Your task to perform on an android device: see creations saved in the google photos Image 0: 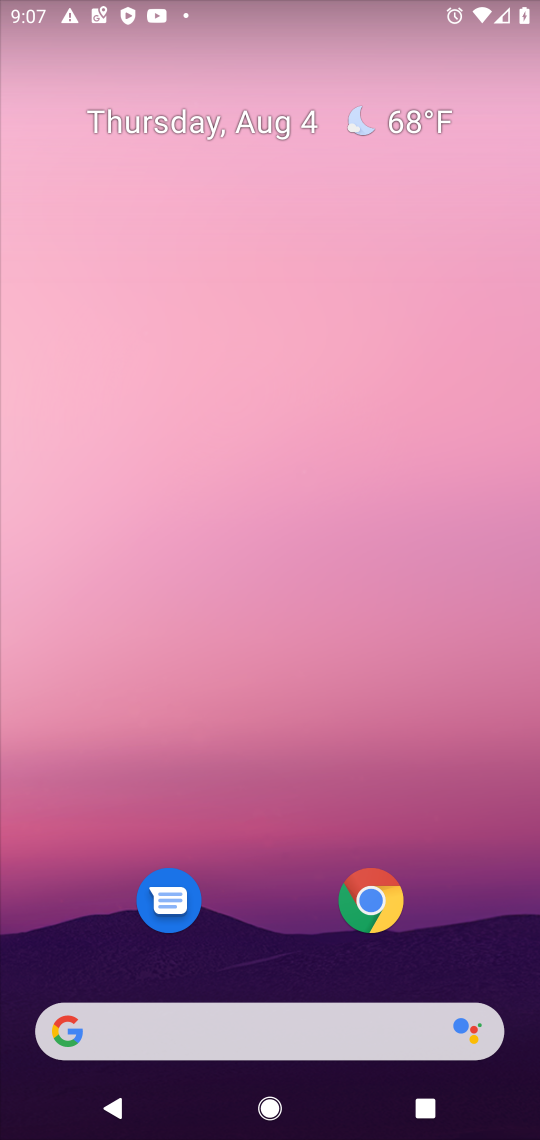
Step 0: drag from (290, 1035) to (406, 169)
Your task to perform on an android device: see creations saved in the google photos Image 1: 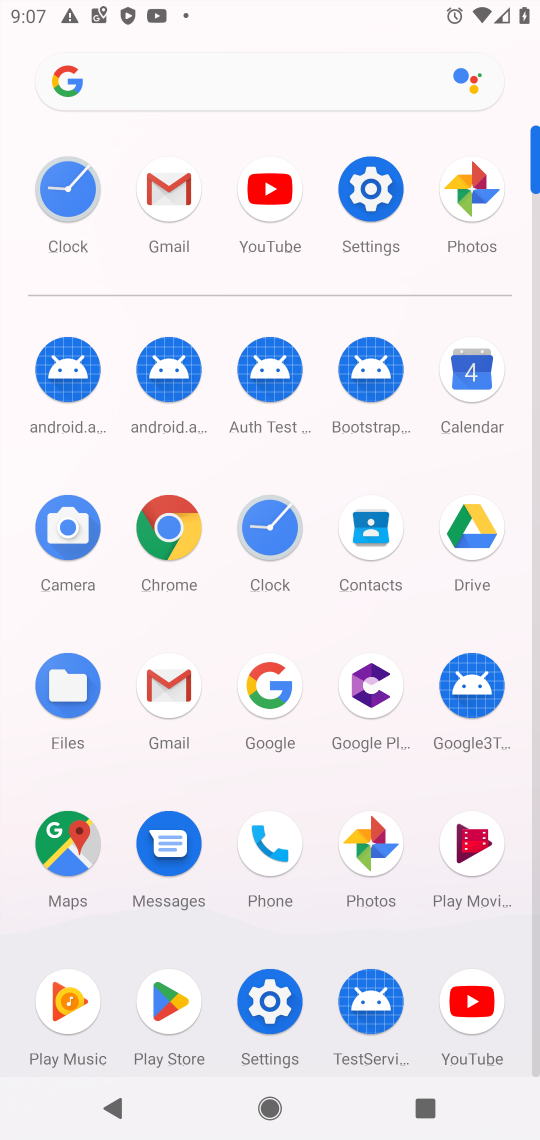
Step 1: click (468, 193)
Your task to perform on an android device: see creations saved in the google photos Image 2: 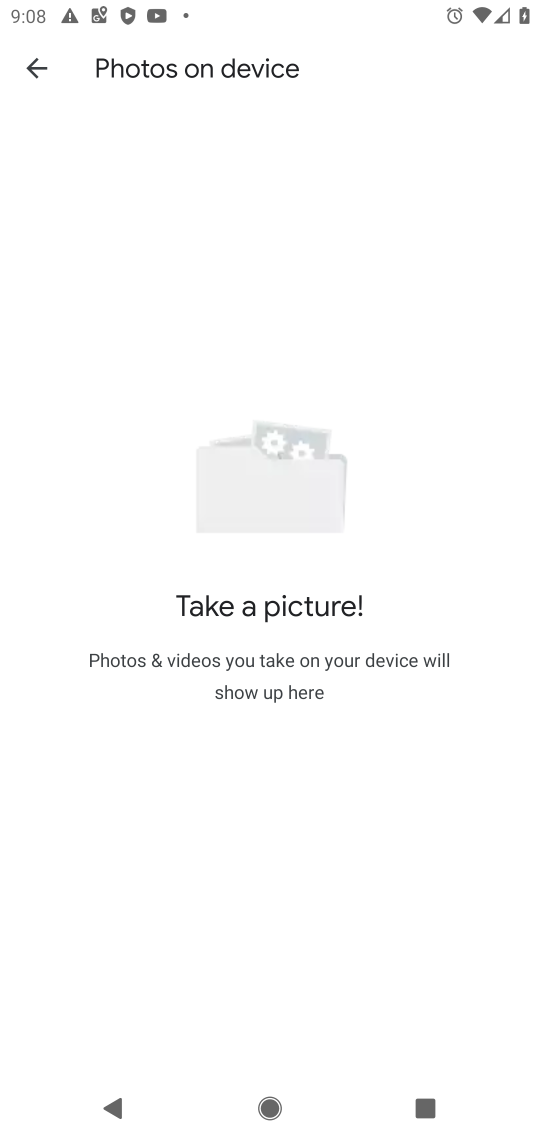
Step 2: press back button
Your task to perform on an android device: see creations saved in the google photos Image 3: 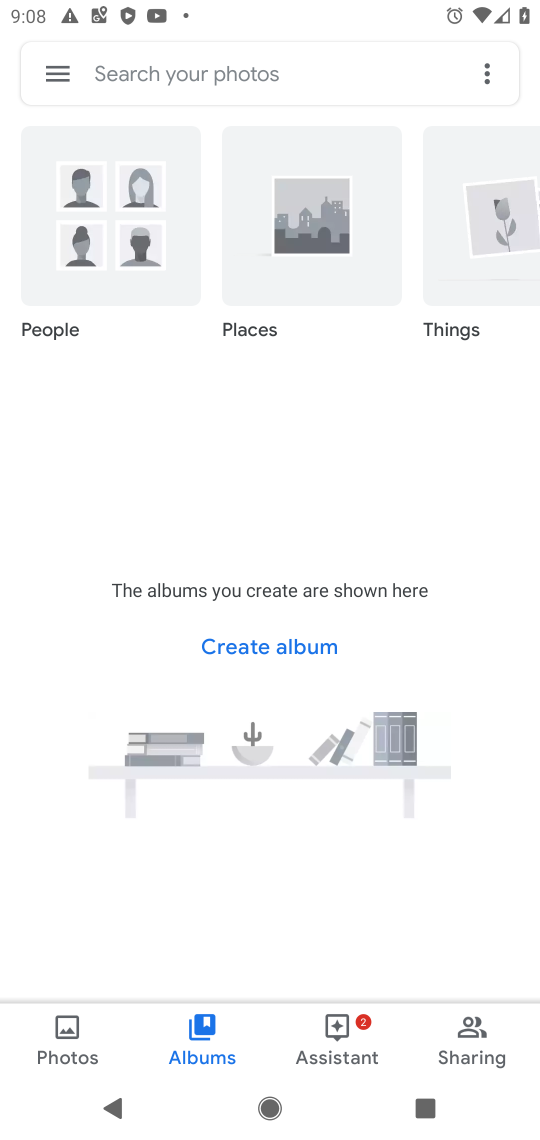
Step 3: click (63, 1043)
Your task to perform on an android device: see creations saved in the google photos Image 4: 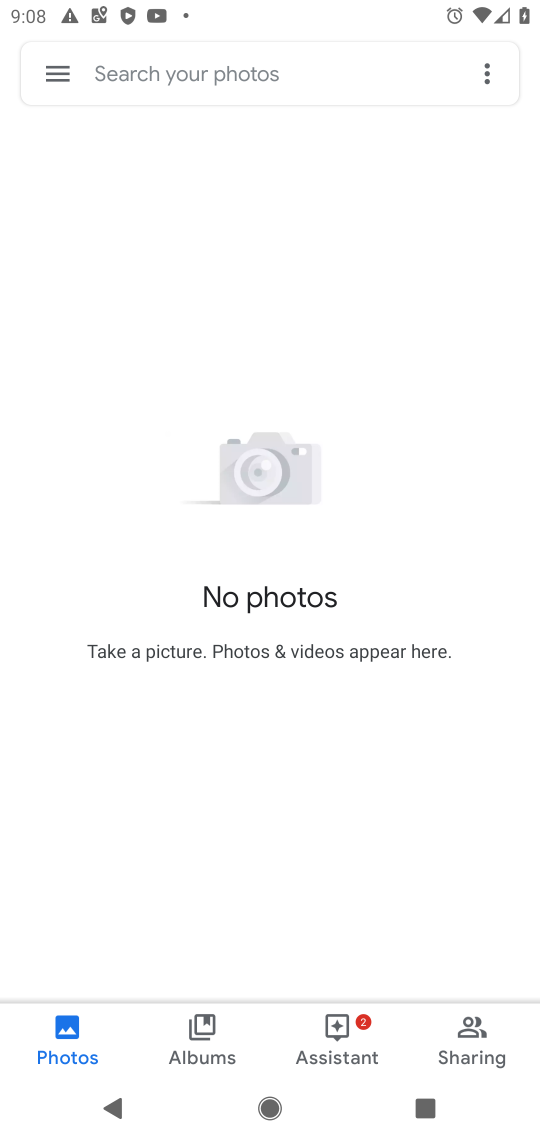
Step 4: click (54, 81)
Your task to perform on an android device: see creations saved in the google photos Image 5: 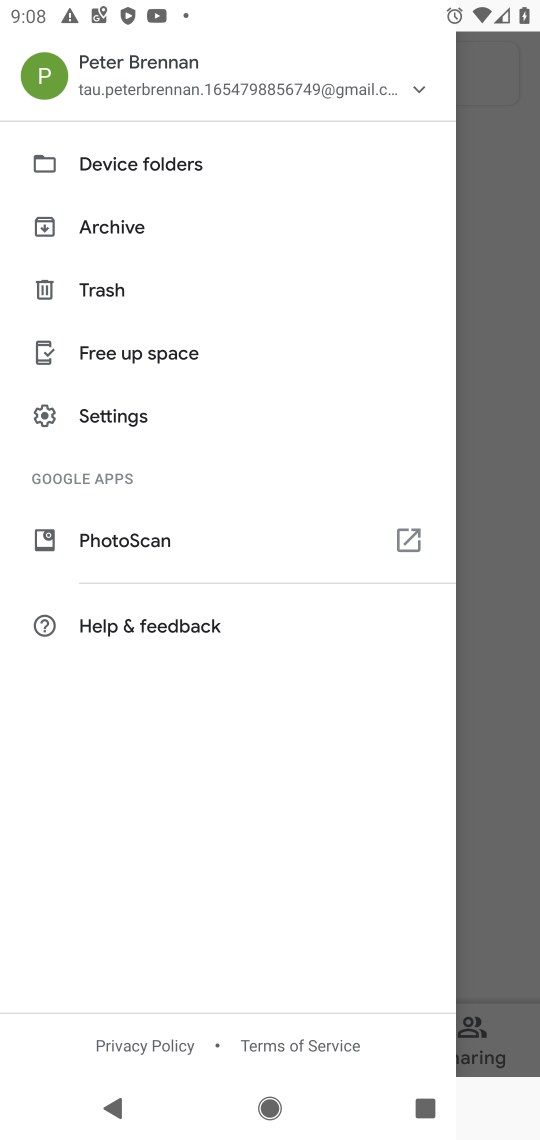
Step 5: click (151, 410)
Your task to perform on an android device: see creations saved in the google photos Image 6: 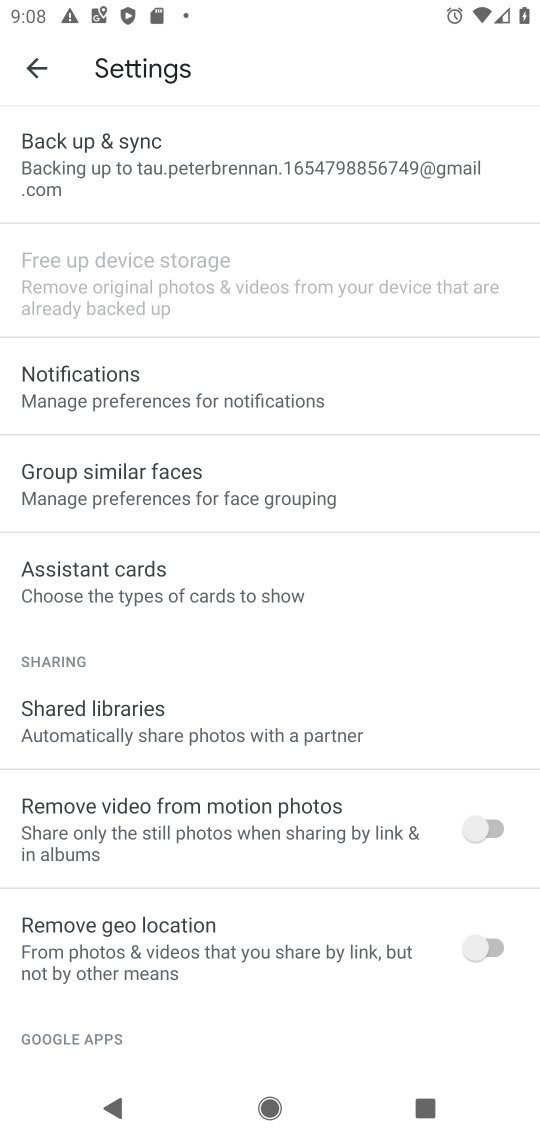
Step 6: drag from (145, 738) to (193, 582)
Your task to perform on an android device: see creations saved in the google photos Image 7: 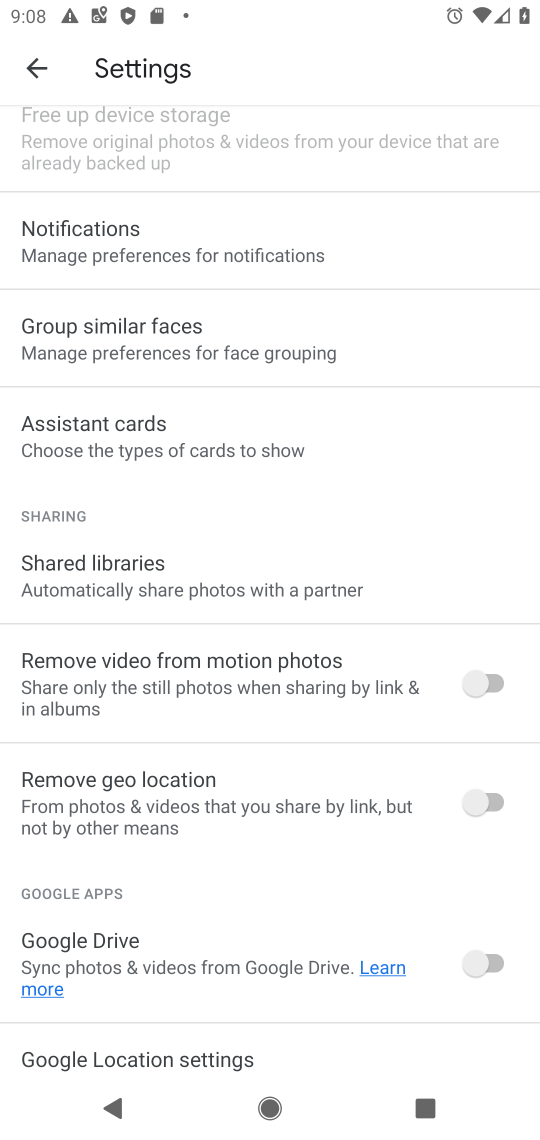
Step 7: drag from (188, 883) to (294, 718)
Your task to perform on an android device: see creations saved in the google photos Image 8: 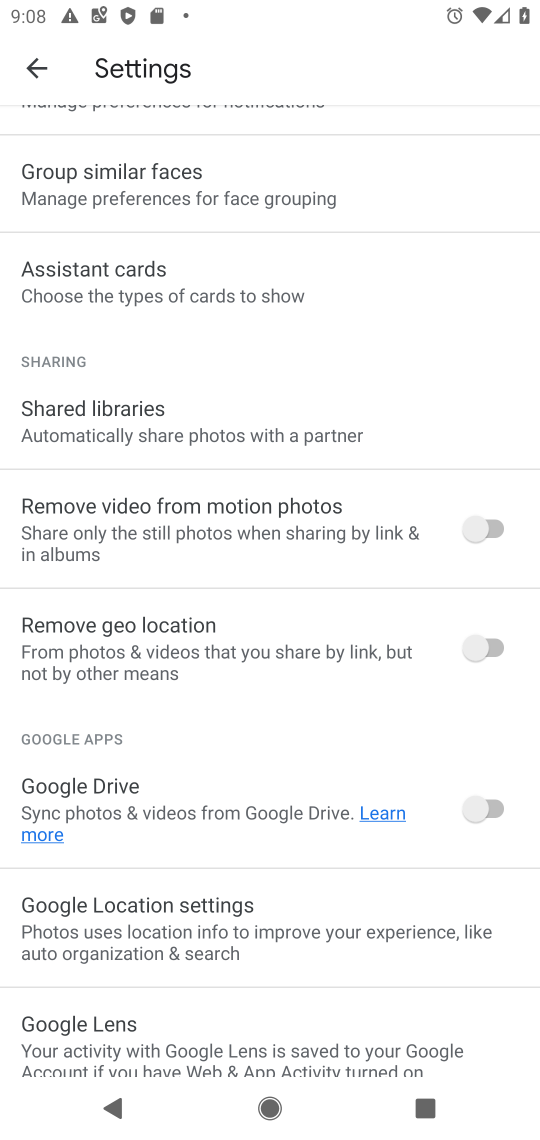
Step 8: drag from (284, 319) to (282, 673)
Your task to perform on an android device: see creations saved in the google photos Image 9: 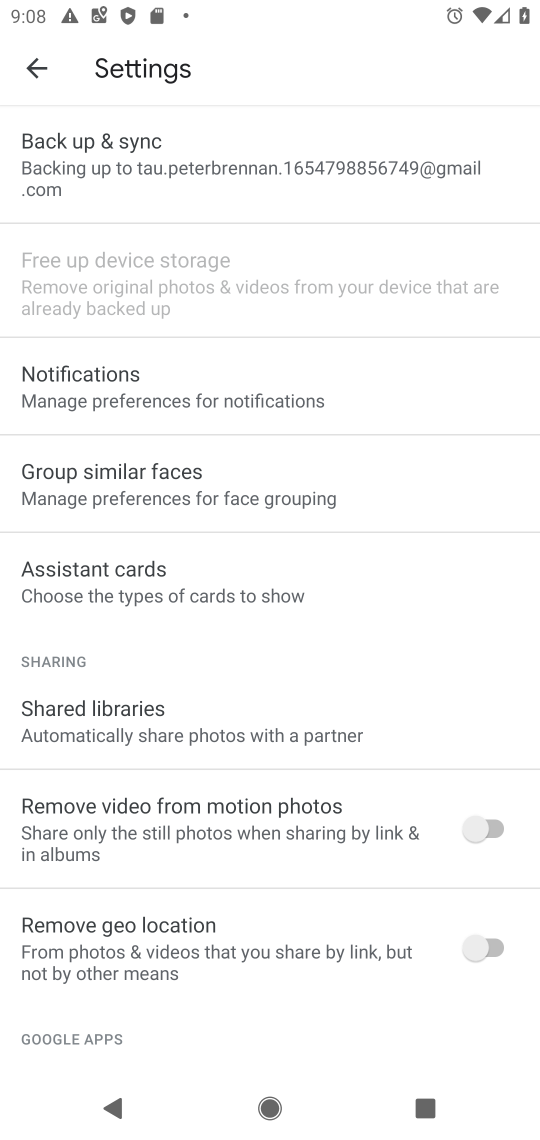
Step 9: press back button
Your task to perform on an android device: see creations saved in the google photos Image 10: 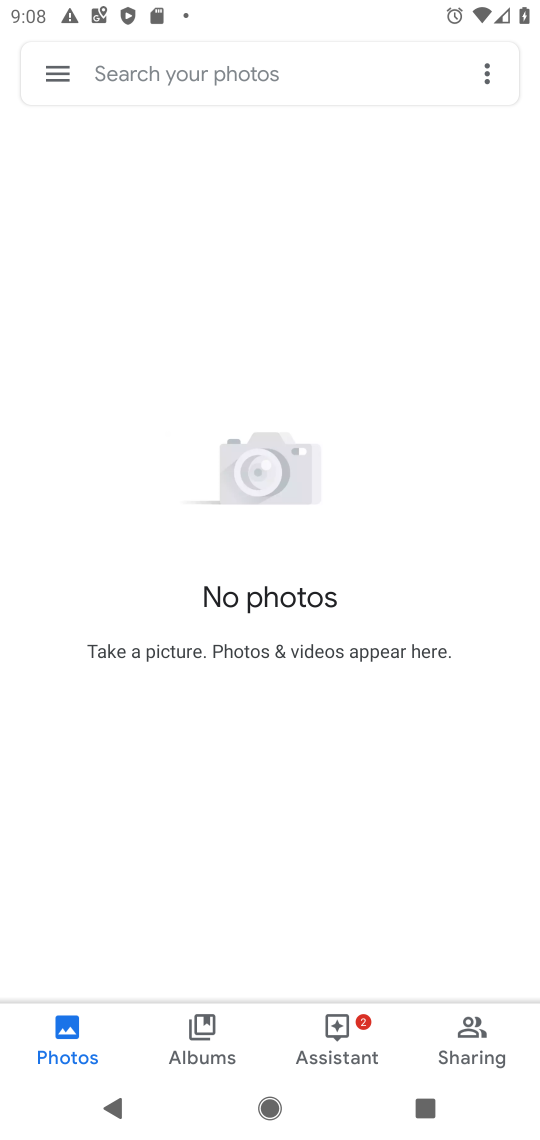
Step 10: click (206, 89)
Your task to perform on an android device: see creations saved in the google photos Image 11: 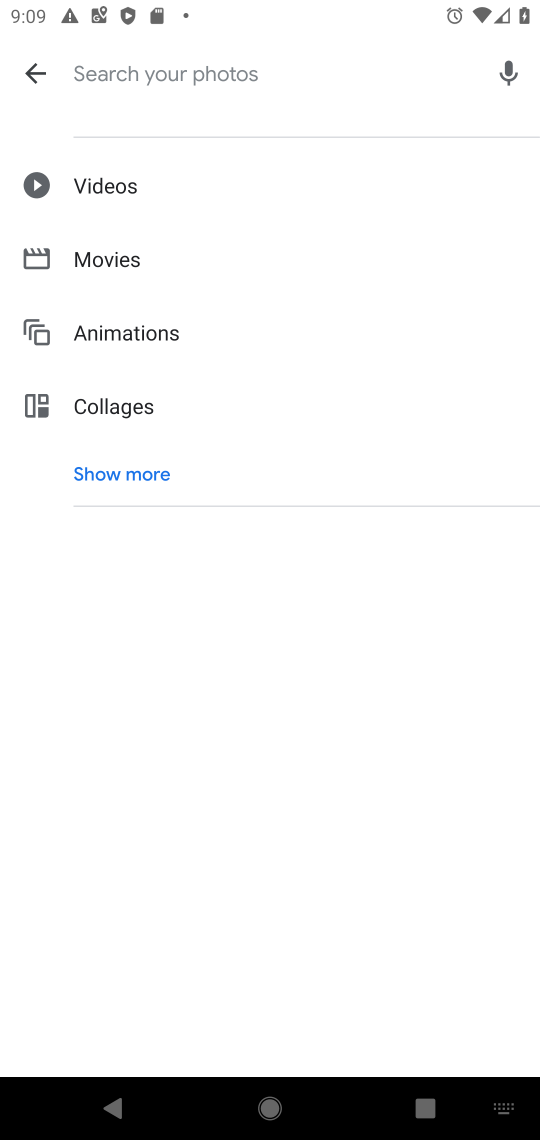
Step 11: click (127, 471)
Your task to perform on an android device: see creations saved in the google photos Image 12: 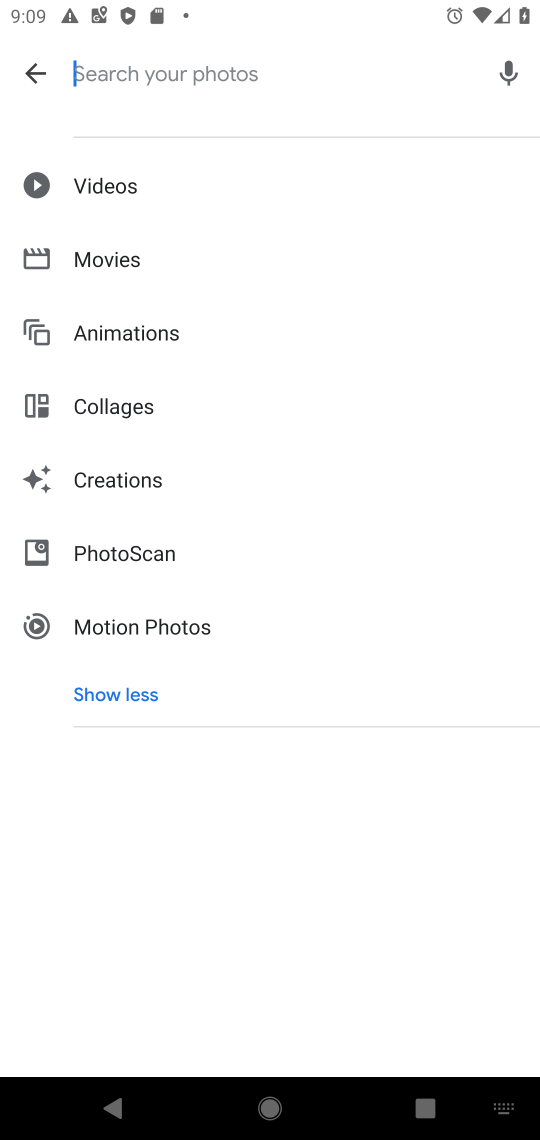
Step 12: click (127, 471)
Your task to perform on an android device: see creations saved in the google photos Image 13: 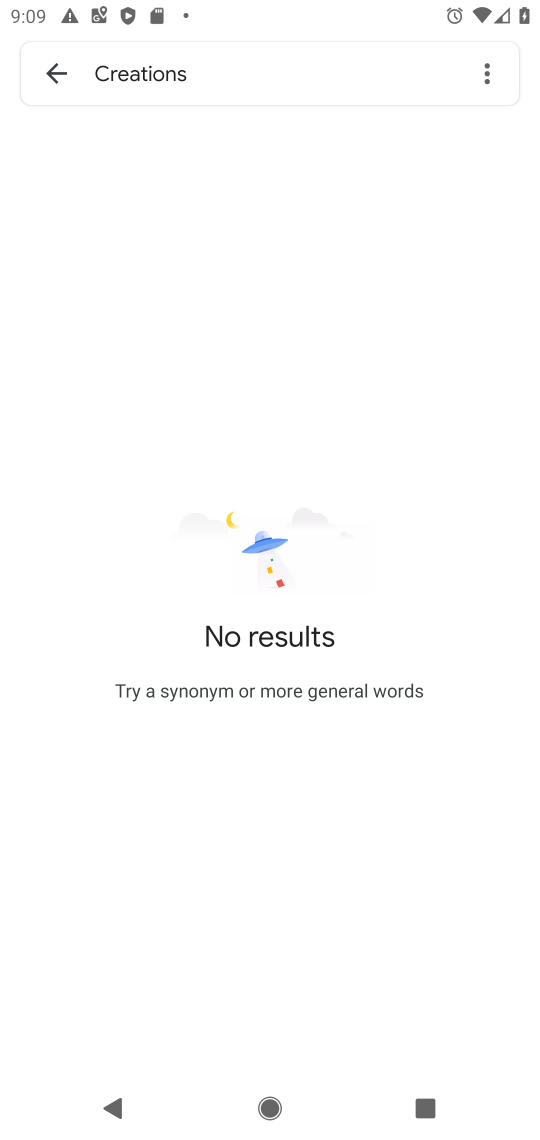
Step 13: task complete